Your task to perform on an android device: Go to network settings Image 0: 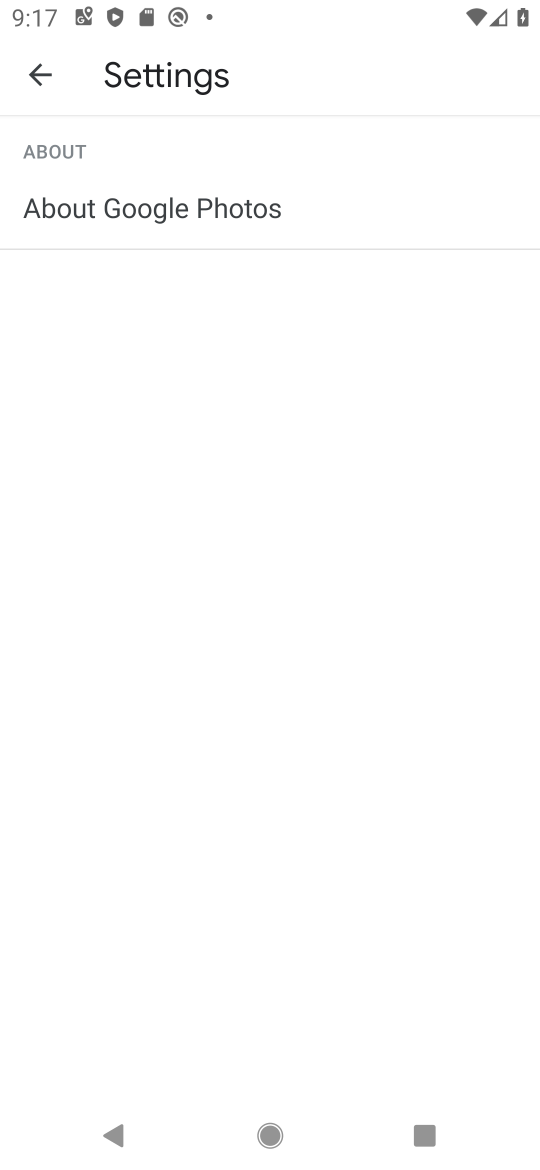
Step 0: press home button
Your task to perform on an android device: Go to network settings Image 1: 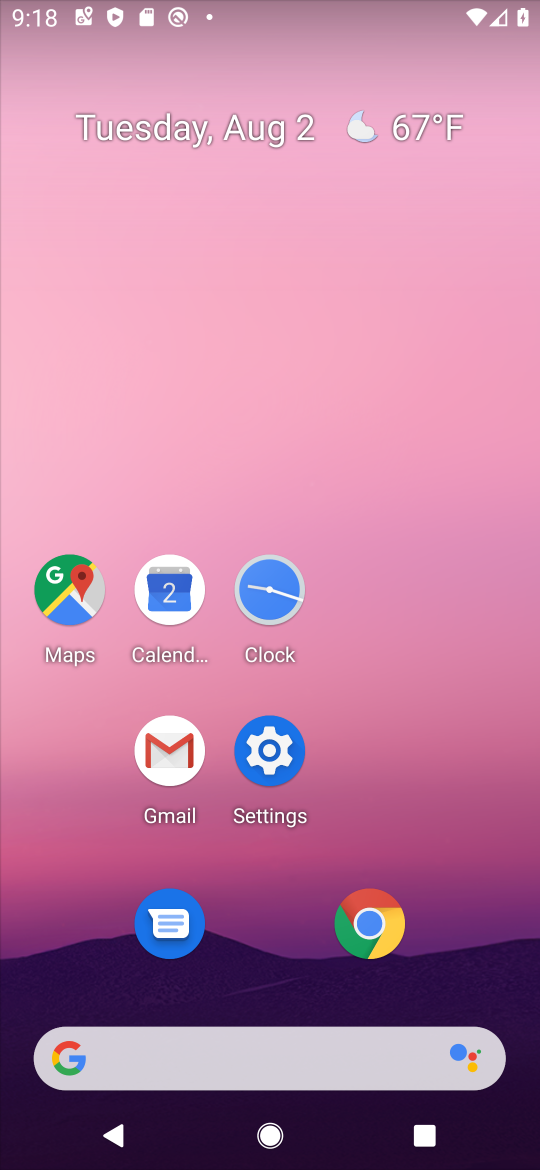
Step 1: click (278, 756)
Your task to perform on an android device: Go to network settings Image 2: 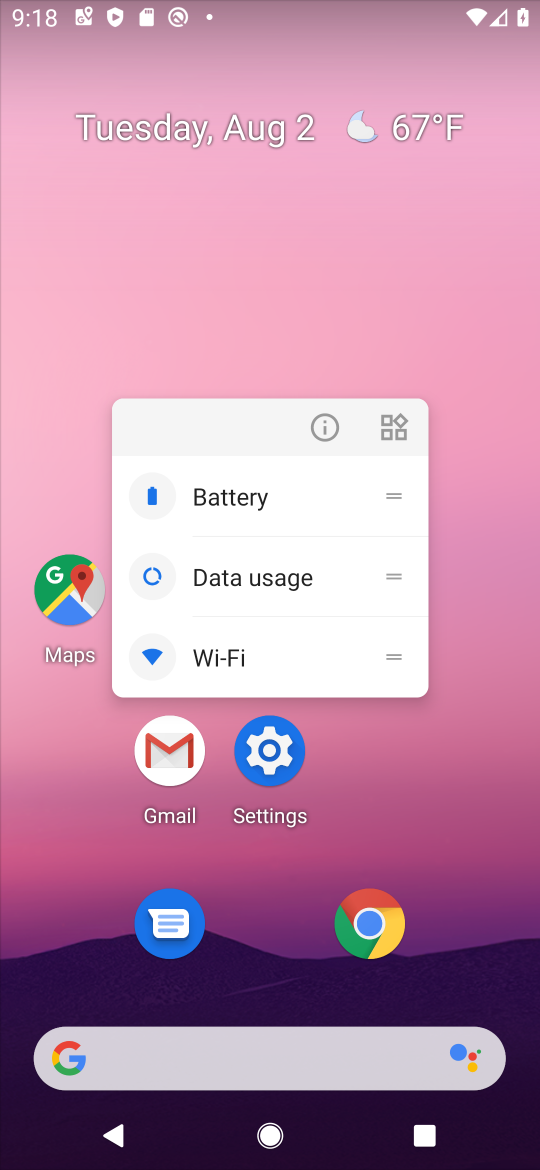
Step 2: click (255, 767)
Your task to perform on an android device: Go to network settings Image 3: 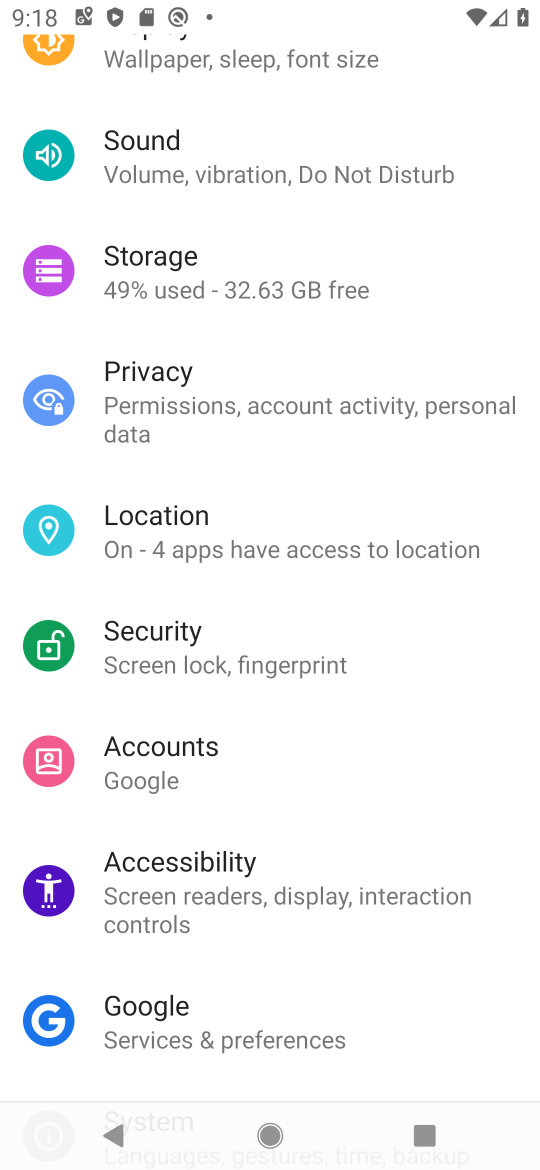
Step 3: drag from (300, 123) to (271, 926)
Your task to perform on an android device: Go to network settings Image 4: 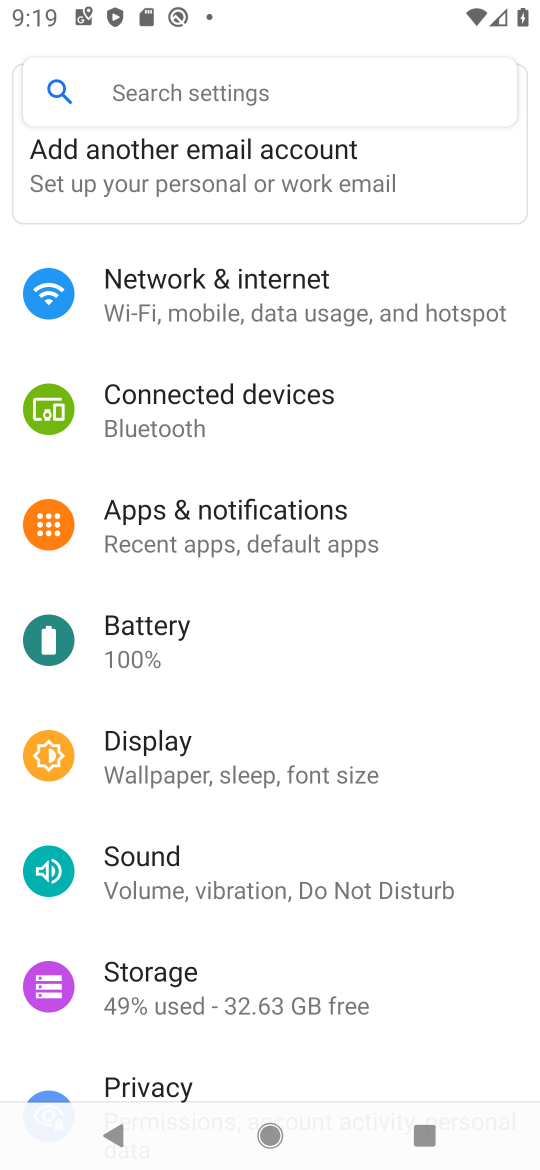
Step 4: click (194, 276)
Your task to perform on an android device: Go to network settings Image 5: 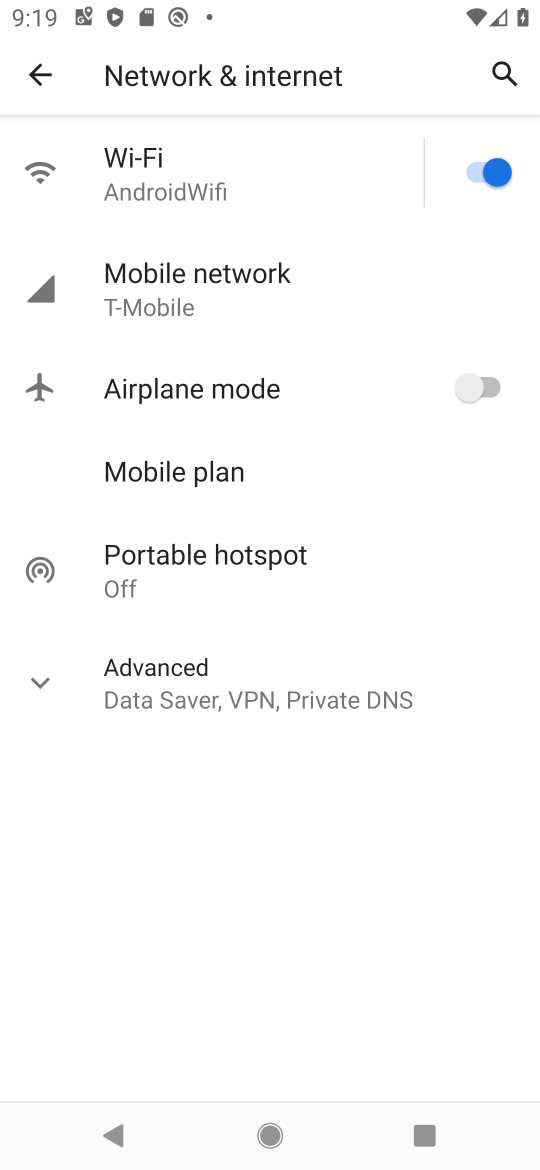
Step 5: click (43, 687)
Your task to perform on an android device: Go to network settings Image 6: 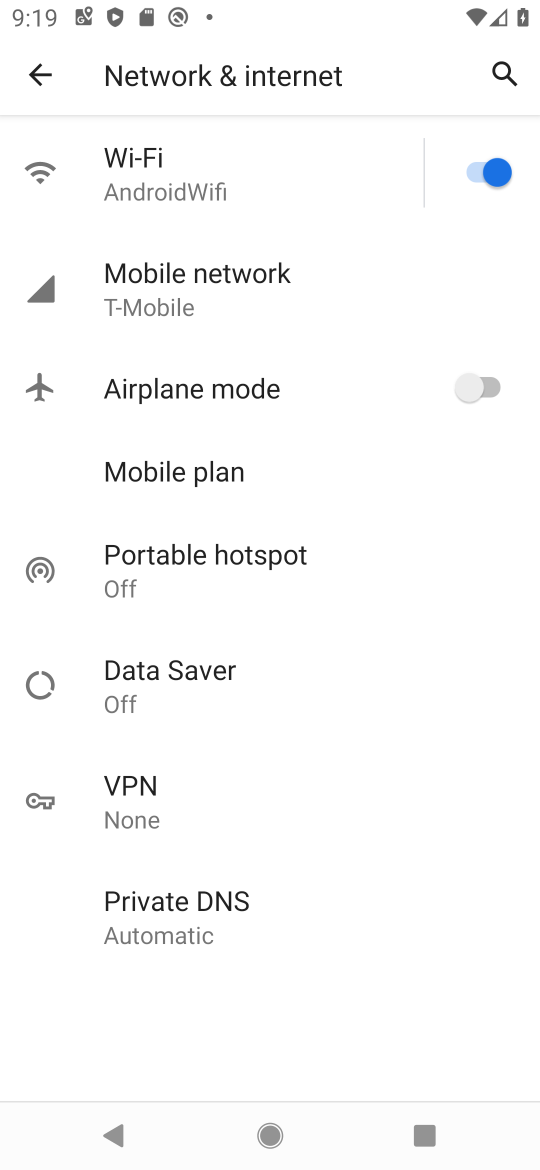
Step 6: task complete